Your task to perform on an android device: turn off location history Image 0: 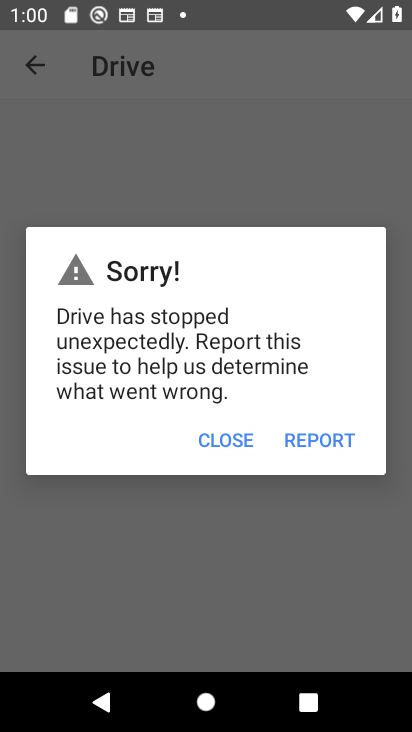
Step 0: press home button
Your task to perform on an android device: turn off location history Image 1: 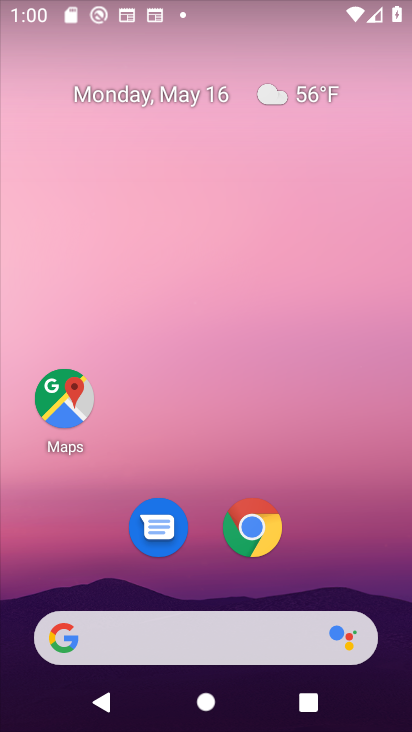
Step 1: drag from (169, 632) to (177, 39)
Your task to perform on an android device: turn off location history Image 2: 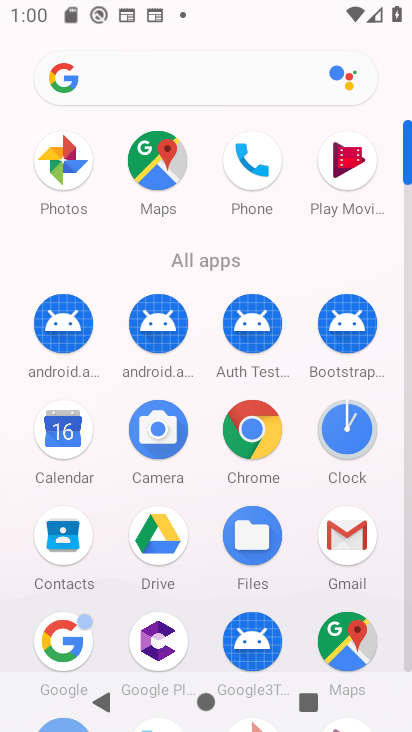
Step 2: drag from (158, 606) to (125, 5)
Your task to perform on an android device: turn off location history Image 3: 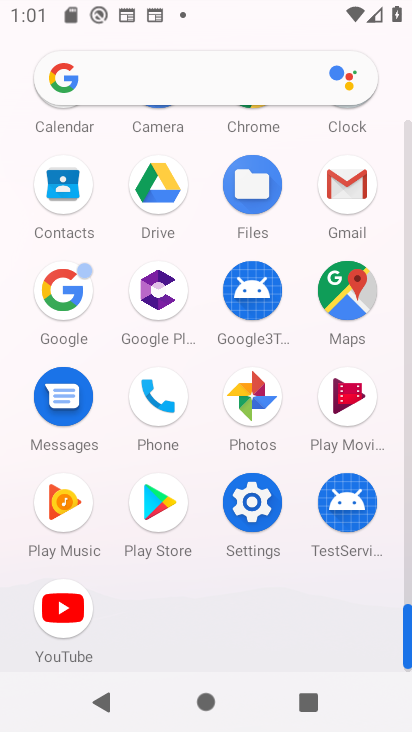
Step 3: click (264, 507)
Your task to perform on an android device: turn off location history Image 4: 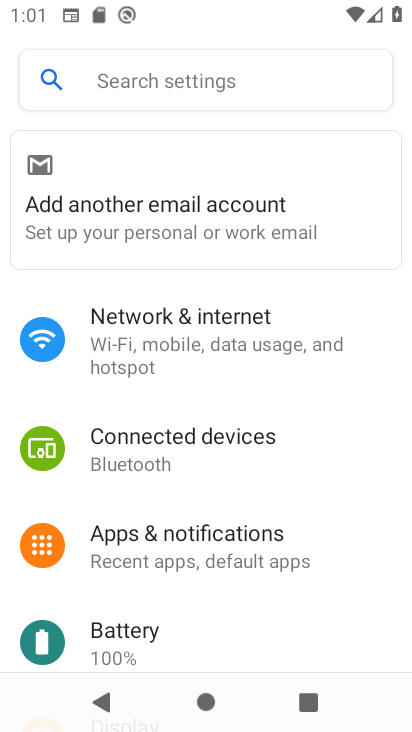
Step 4: drag from (166, 567) to (150, 102)
Your task to perform on an android device: turn off location history Image 5: 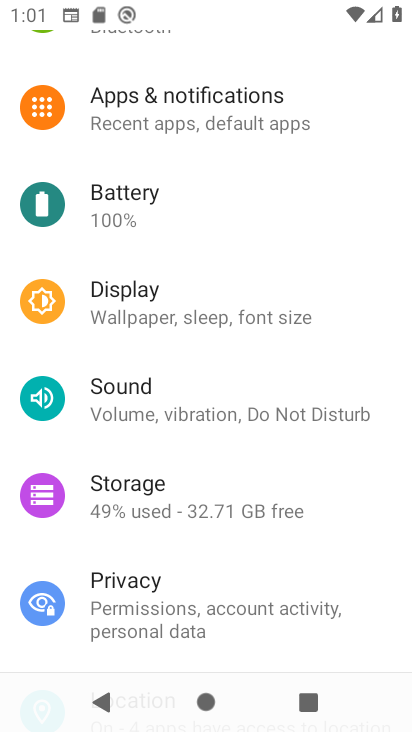
Step 5: drag from (137, 499) to (162, 0)
Your task to perform on an android device: turn off location history Image 6: 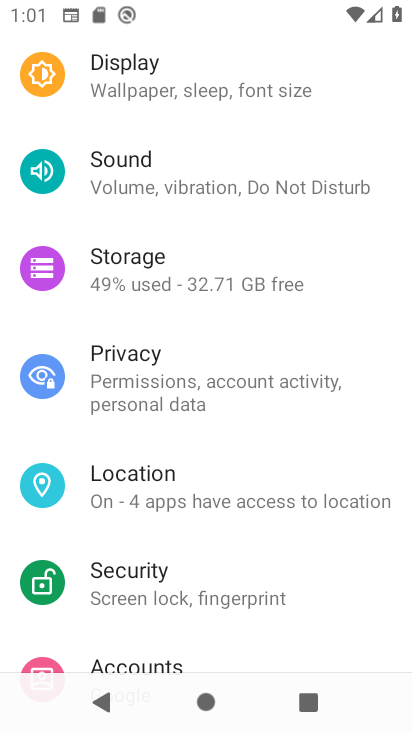
Step 6: click (151, 482)
Your task to perform on an android device: turn off location history Image 7: 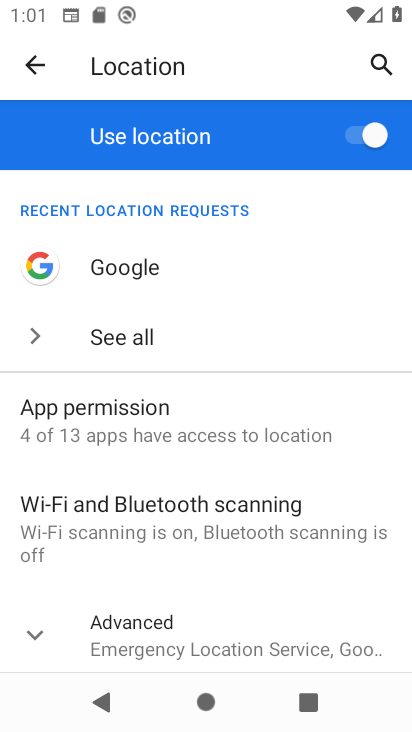
Step 7: click (155, 658)
Your task to perform on an android device: turn off location history Image 8: 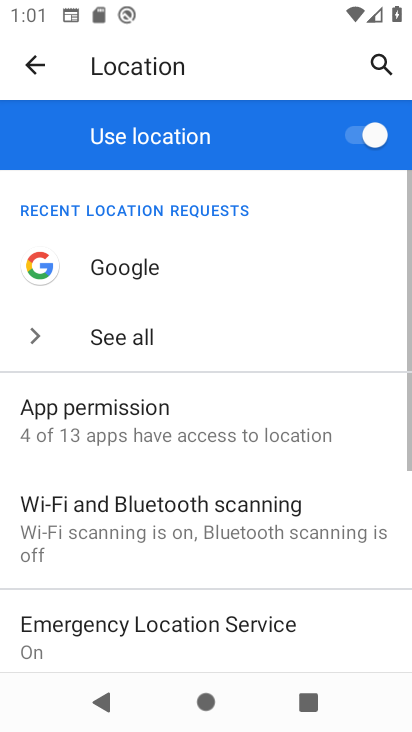
Step 8: drag from (169, 616) to (153, 314)
Your task to perform on an android device: turn off location history Image 9: 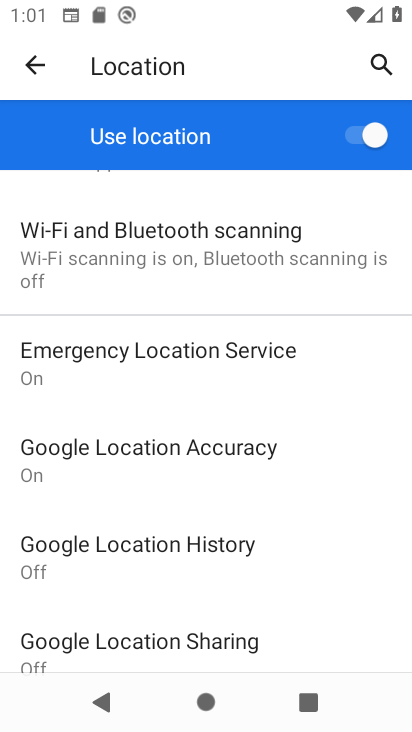
Step 9: click (154, 549)
Your task to perform on an android device: turn off location history Image 10: 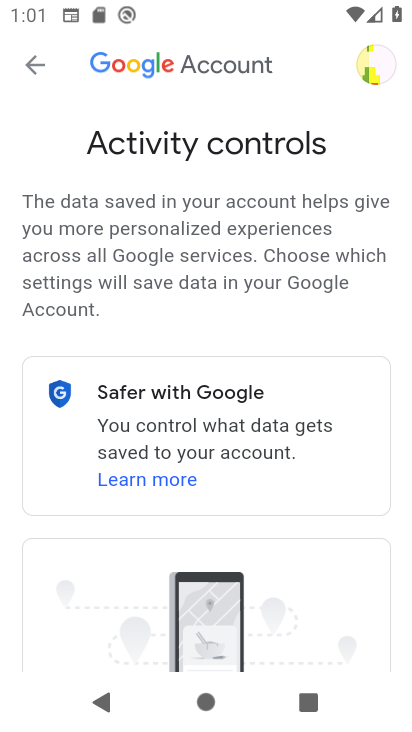
Step 10: task complete